Your task to perform on an android device: Open location settings Image 0: 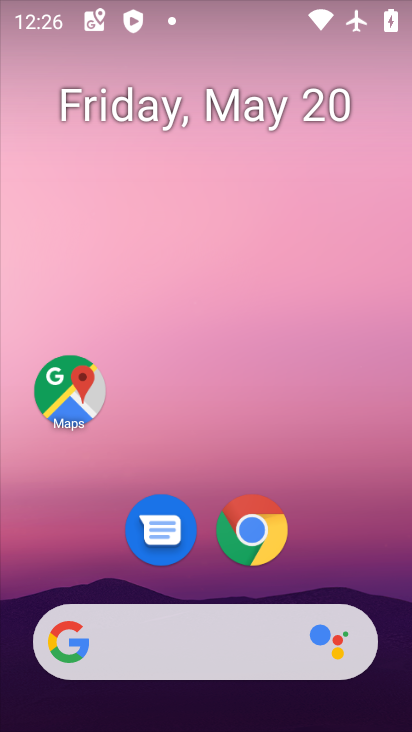
Step 0: drag from (260, 711) to (236, 61)
Your task to perform on an android device: Open location settings Image 1: 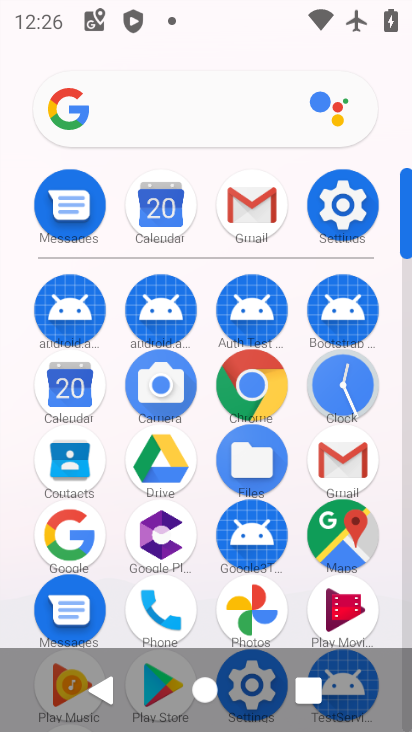
Step 1: click (343, 205)
Your task to perform on an android device: Open location settings Image 2: 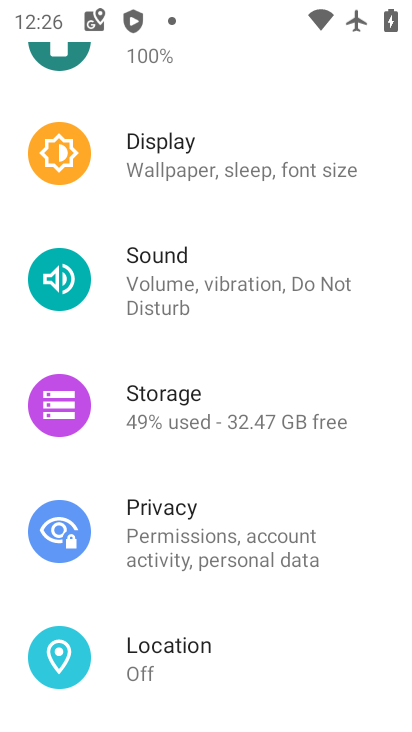
Step 2: drag from (269, 656) to (346, 220)
Your task to perform on an android device: Open location settings Image 3: 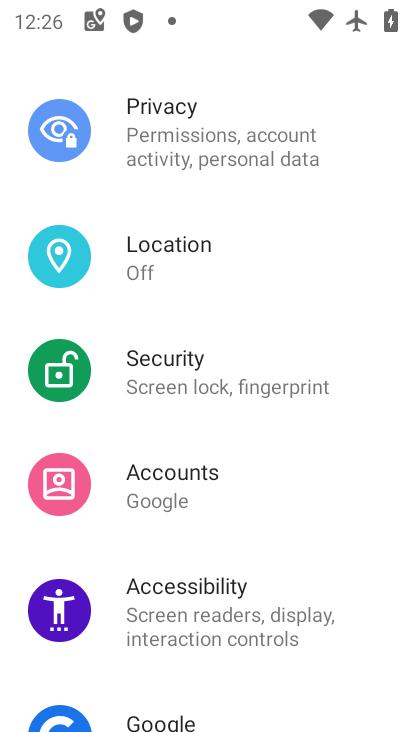
Step 3: click (175, 254)
Your task to perform on an android device: Open location settings Image 4: 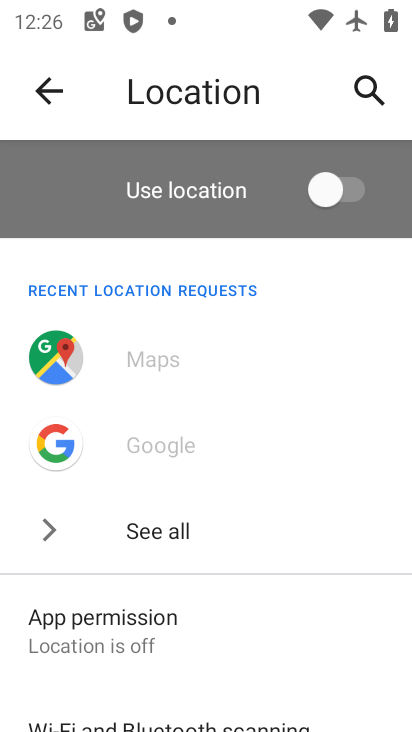
Step 4: task complete